Your task to perform on an android device: Search for pizza restaurants on Maps Image 0: 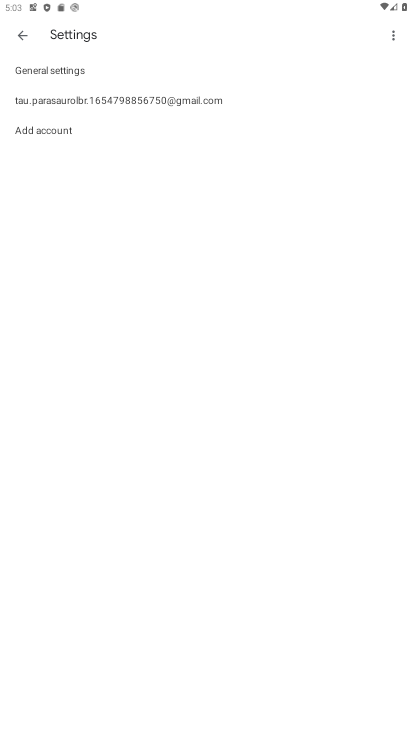
Step 0: press home button
Your task to perform on an android device: Search for pizza restaurants on Maps Image 1: 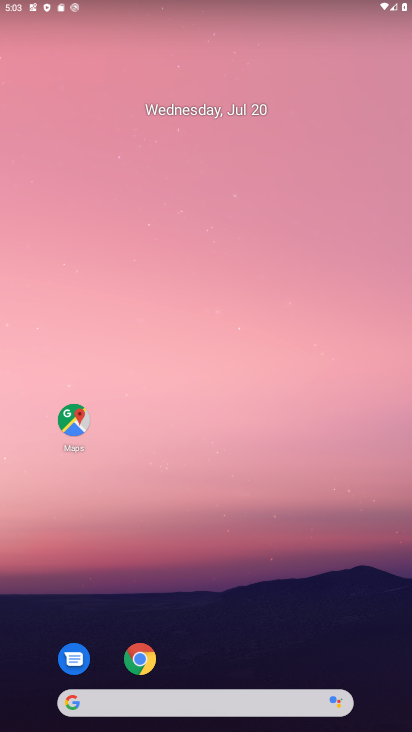
Step 1: click (74, 420)
Your task to perform on an android device: Search for pizza restaurants on Maps Image 2: 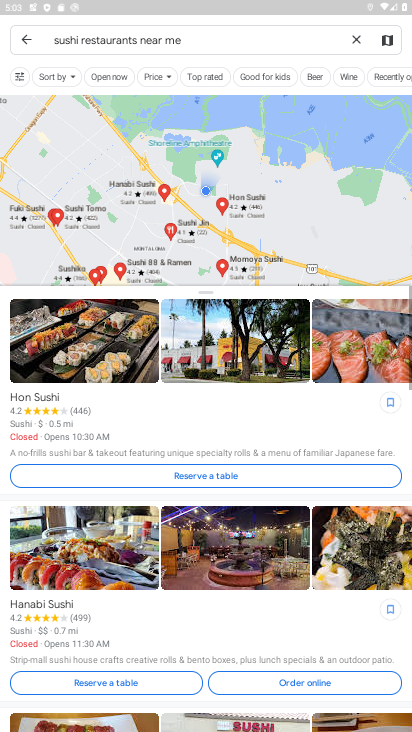
Step 2: click (104, 42)
Your task to perform on an android device: Search for pizza restaurants on Maps Image 3: 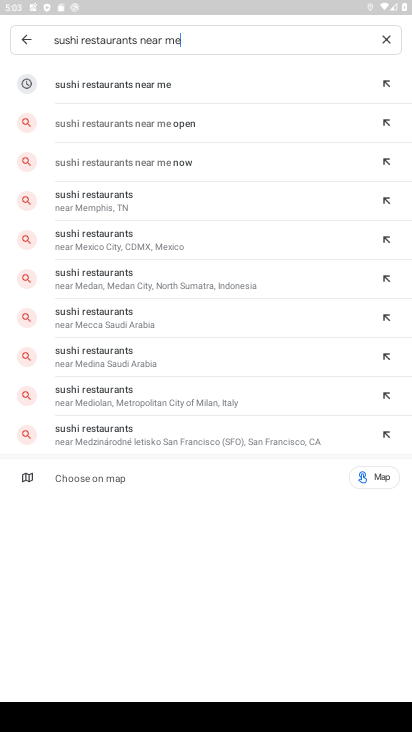
Step 3: click (378, 44)
Your task to perform on an android device: Search for pizza restaurants on Maps Image 4: 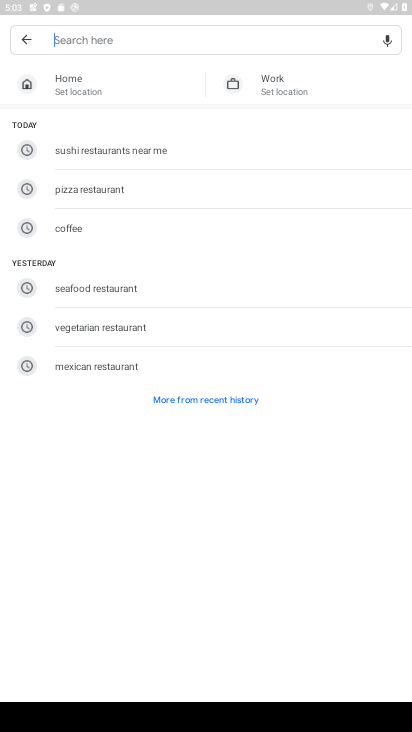
Step 4: click (76, 195)
Your task to perform on an android device: Search for pizza restaurants on Maps Image 5: 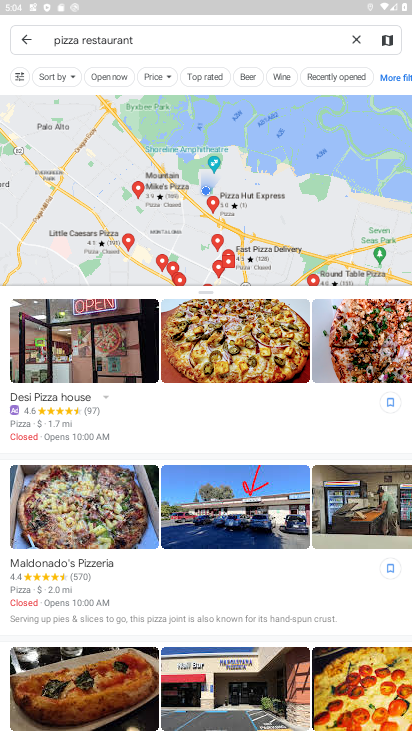
Step 5: task complete